Your task to perform on an android device: Open maps Image 0: 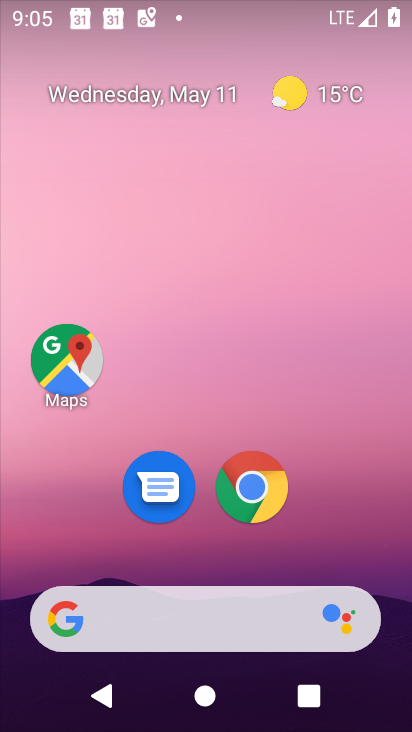
Step 0: drag from (326, 634) to (253, 140)
Your task to perform on an android device: Open maps Image 1: 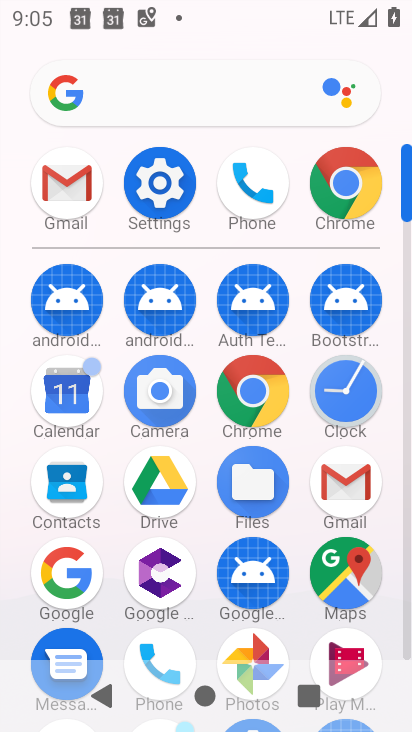
Step 1: click (338, 570)
Your task to perform on an android device: Open maps Image 2: 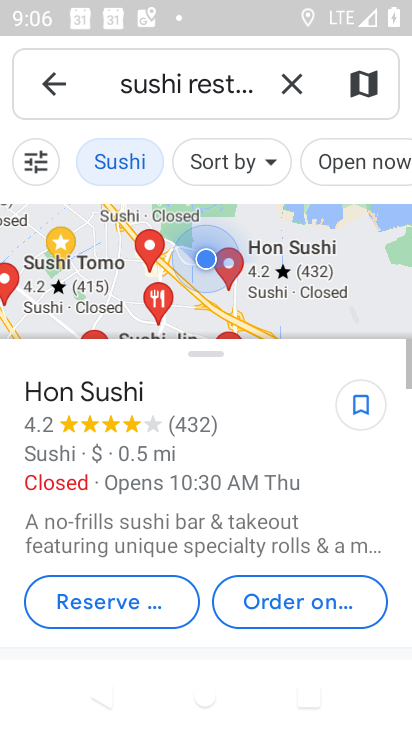
Step 2: click (38, 91)
Your task to perform on an android device: Open maps Image 3: 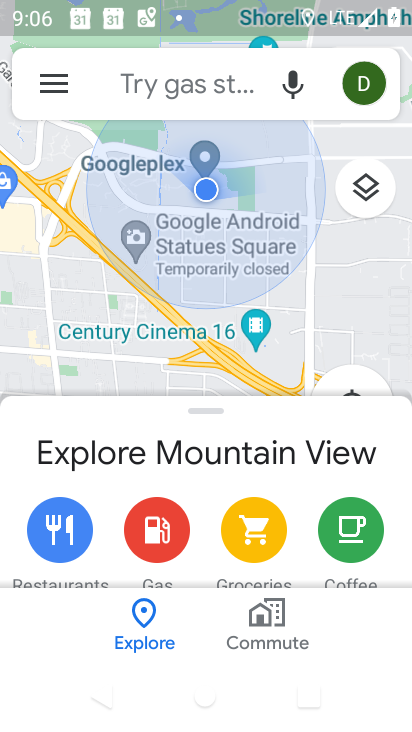
Step 3: click (167, 100)
Your task to perform on an android device: Open maps Image 4: 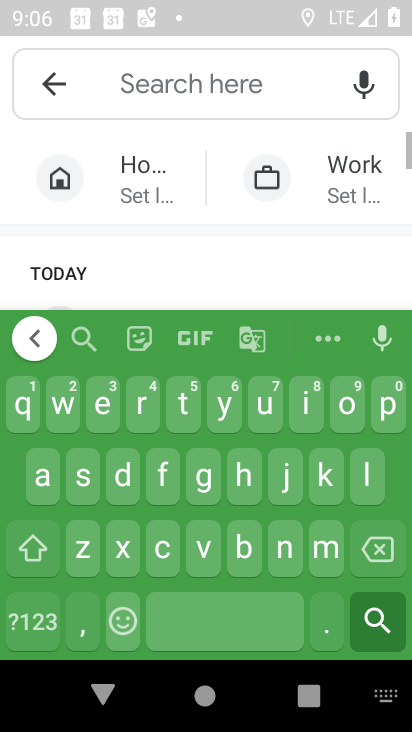
Step 4: click (58, 88)
Your task to perform on an android device: Open maps Image 5: 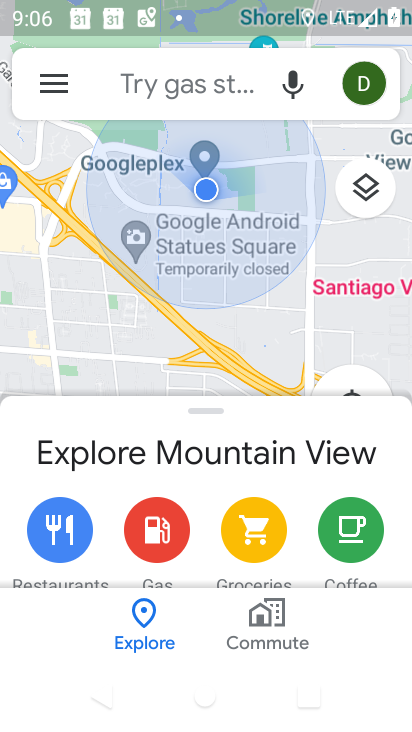
Step 5: task complete